Your task to perform on an android device: turn on translation in the chrome app Image 0: 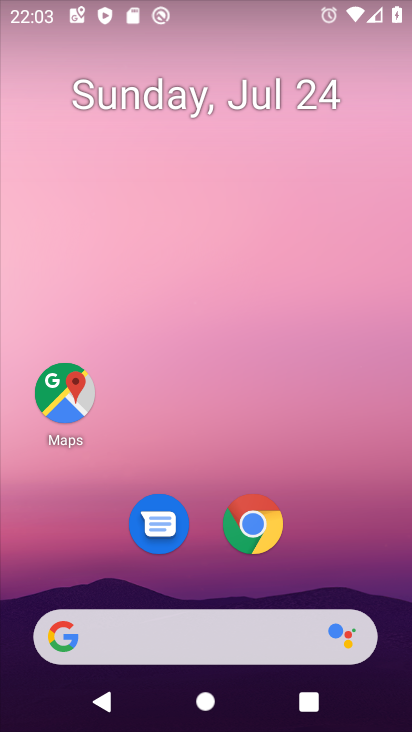
Step 0: press home button
Your task to perform on an android device: turn on translation in the chrome app Image 1: 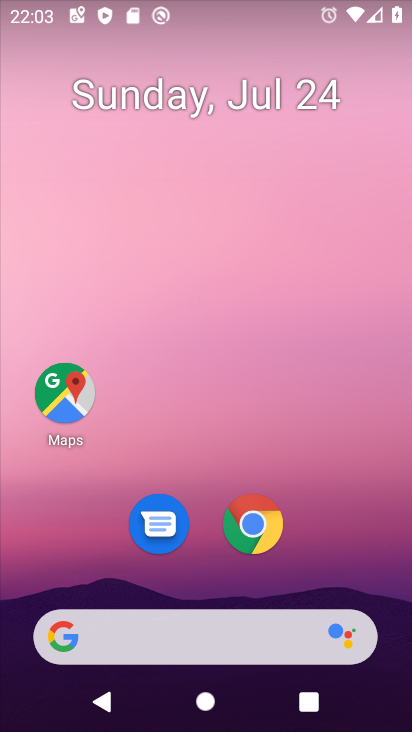
Step 1: click (256, 527)
Your task to perform on an android device: turn on translation in the chrome app Image 2: 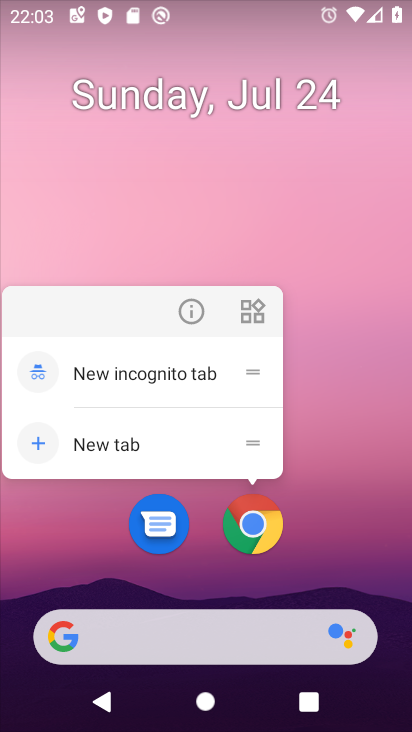
Step 2: click (256, 524)
Your task to perform on an android device: turn on translation in the chrome app Image 3: 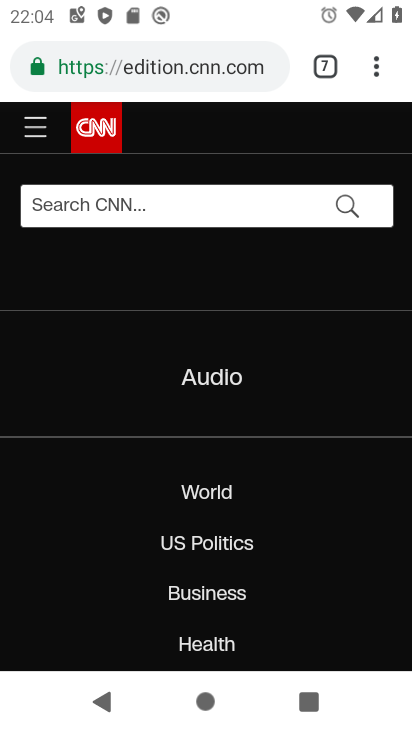
Step 3: drag from (371, 66) to (209, 522)
Your task to perform on an android device: turn on translation in the chrome app Image 4: 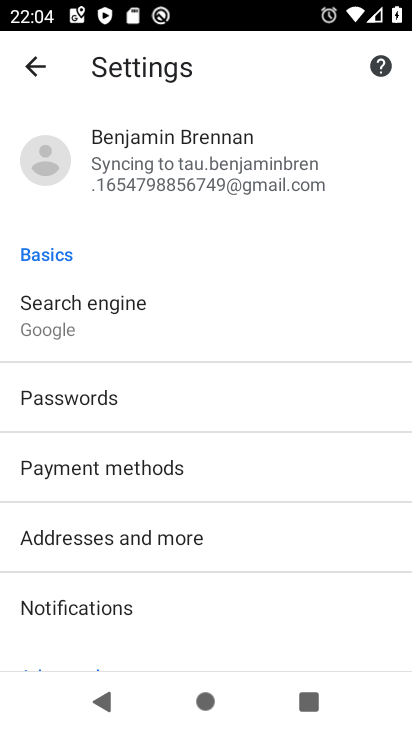
Step 4: drag from (114, 640) to (331, 253)
Your task to perform on an android device: turn on translation in the chrome app Image 5: 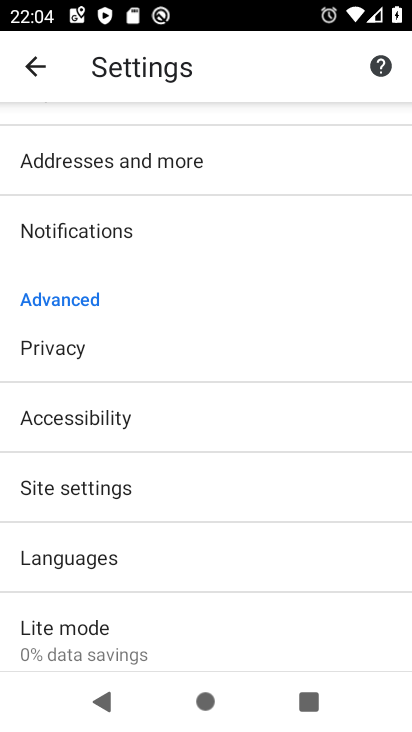
Step 5: click (94, 569)
Your task to perform on an android device: turn on translation in the chrome app Image 6: 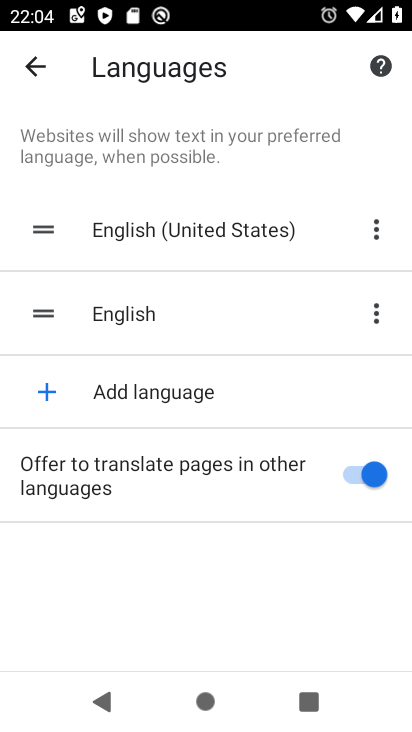
Step 6: task complete